Your task to perform on an android device: see creations saved in the google photos Image 0: 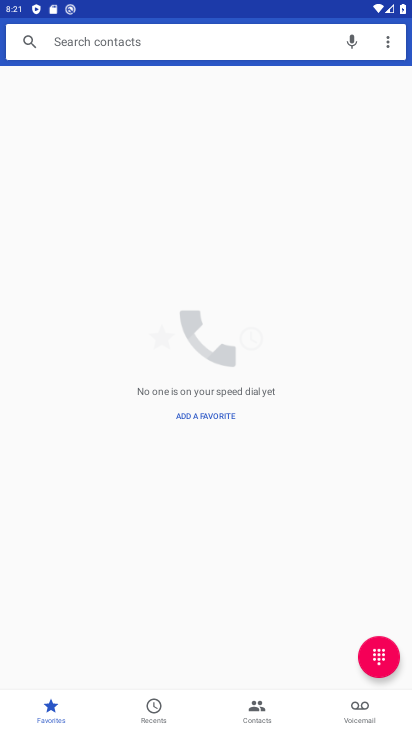
Step 0: press home button
Your task to perform on an android device: see creations saved in the google photos Image 1: 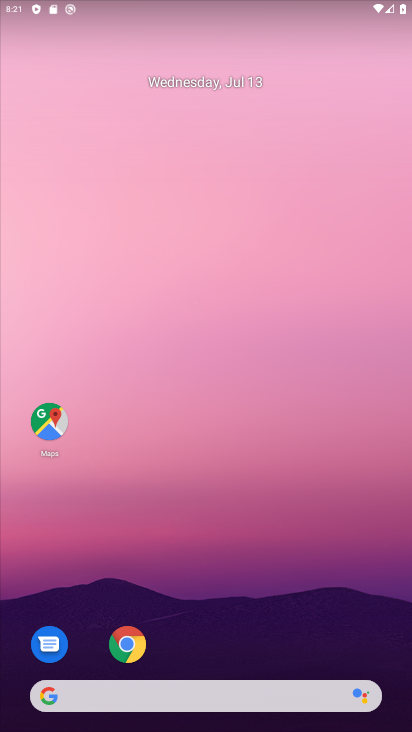
Step 1: drag from (200, 727) to (200, 99)
Your task to perform on an android device: see creations saved in the google photos Image 2: 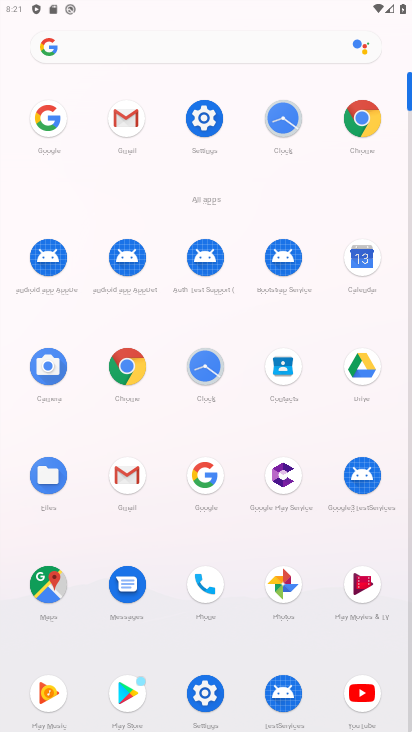
Step 2: click (284, 583)
Your task to perform on an android device: see creations saved in the google photos Image 3: 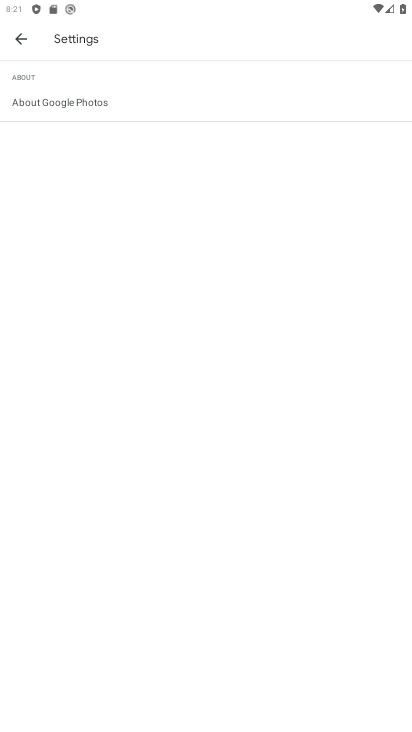
Step 3: click (20, 39)
Your task to perform on an android device: see creations saved in the google photos Image 4: 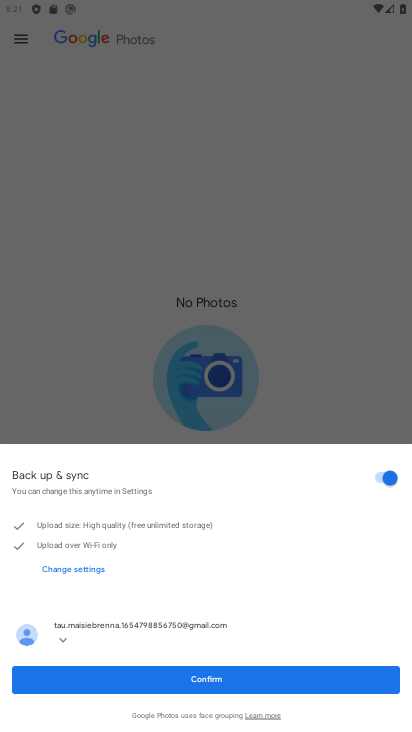
Step 4: click (205, 680)
Your task to perform on an android device: see creations saved in the google photos Image 5: 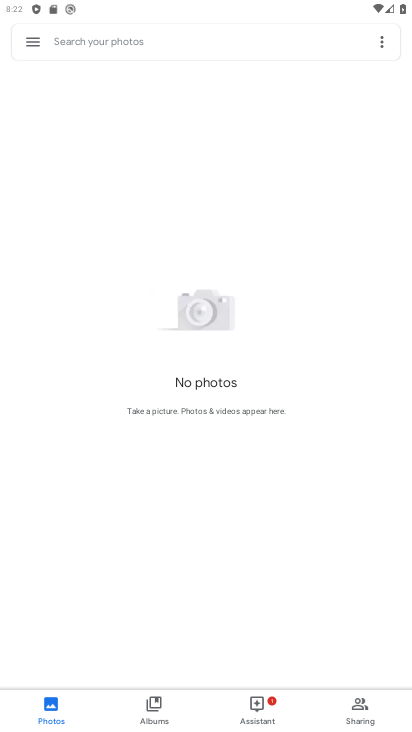
Step 5: click (147, 39)
Your task to perform on an android device: see creations saved in the google photos Image 6: 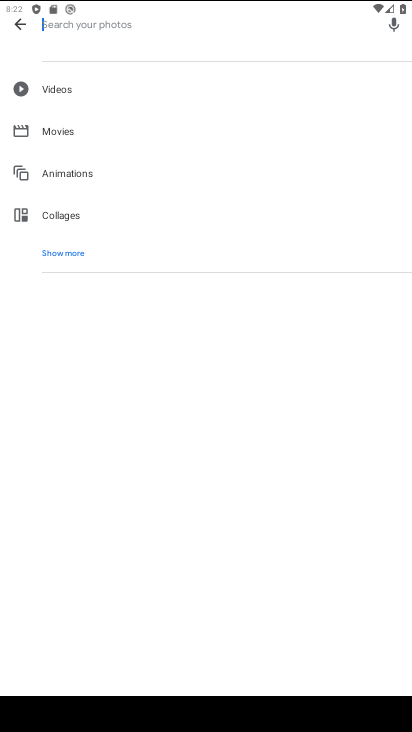
Step 6: click (59, 250)
Your task to perform on an android device: see creations saved in the google photos Image 7: 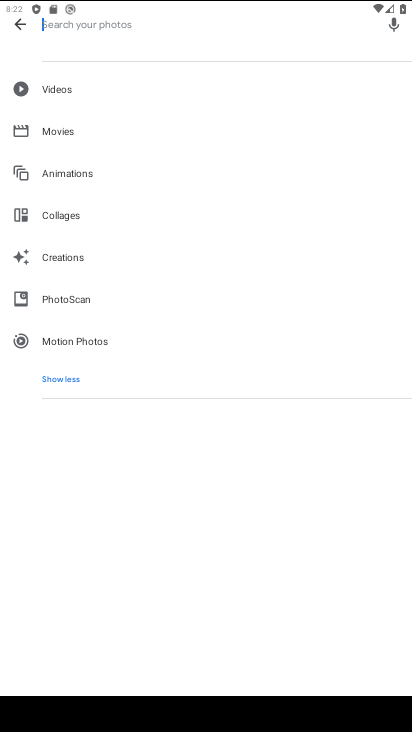
Step 7: click (64, 254)
Your task to perform on an android device: see creations saved in the google photos Image 8: 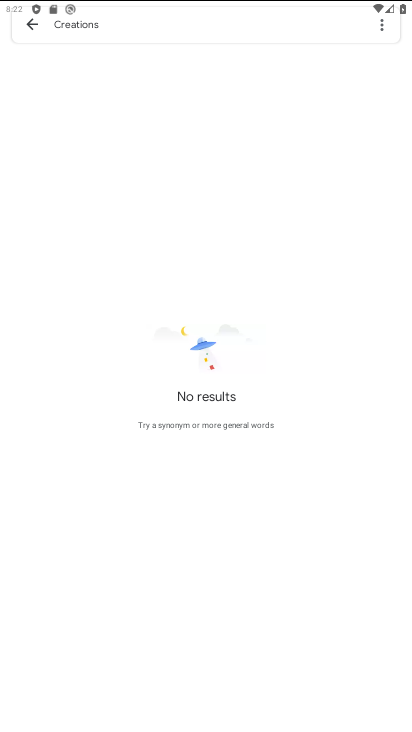
Step 8: task complete